Your task to perform on an android device: open the mobile data screen to see how much data has been used Image 0: 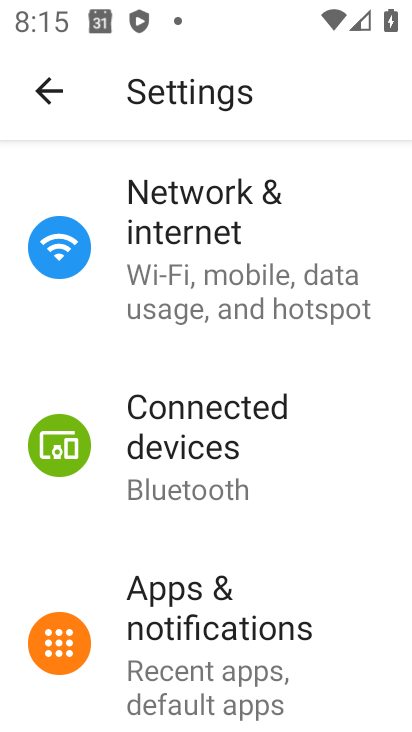
Step 0: press home button
Your task to perform on an android device: open the mobile data screen to see how much data has been used Image 1: 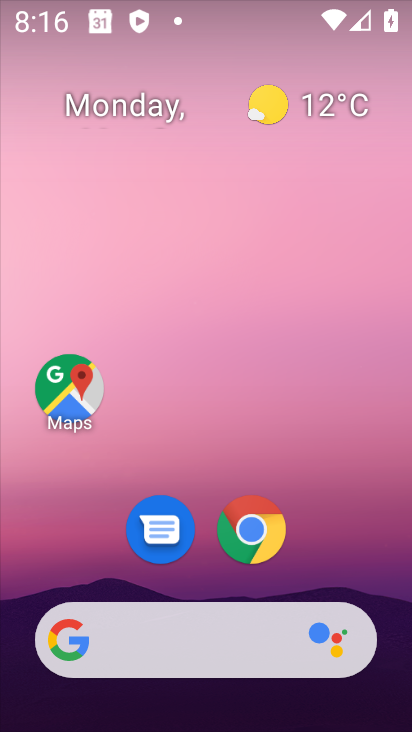
Step 1: drag from (225, 619) to (245, 65)
Your task to perform on an android device: open the mobile data screen to see how much data has been used Image 2: 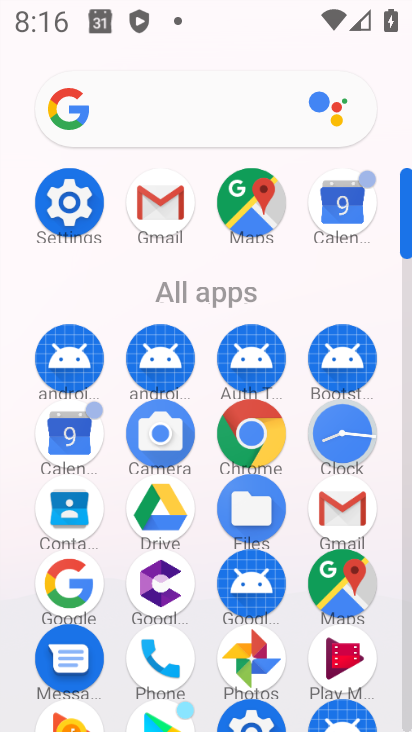
Step 2: click (76, 216)
Your task to perform on an android device: open the mobile data screen to see how much data has been used Image 3: 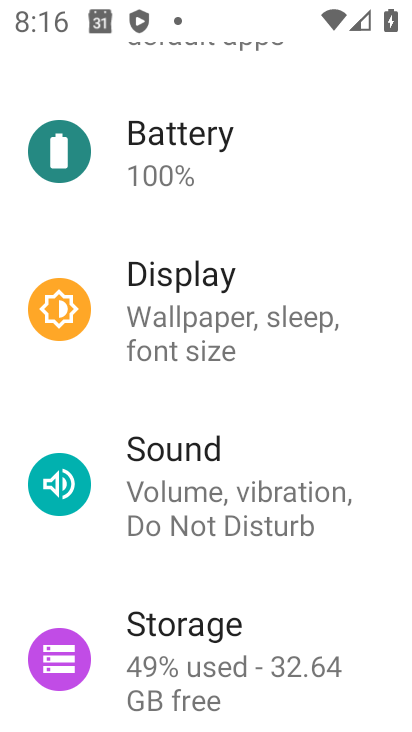
Step 3: drag from (261, 111) to (239, 729)
Your task to perform on an android device: open the mobile data screen to see how much data has been used Image 4: 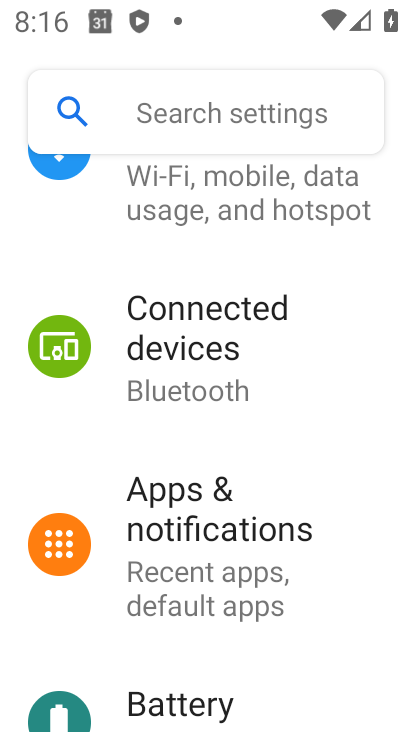
Step 4: drag from (236, 251) to (166, 697)
Your task to perform on an android device: open the mobile data screen to see how much data has been used Image 5: 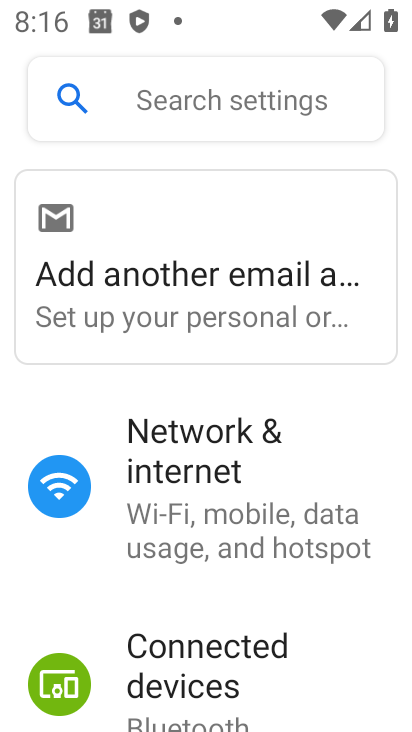
Step 5: click (225, 488)
Your task to perform on an android device: open the mobile data screen to see how much data has been used Image 6: 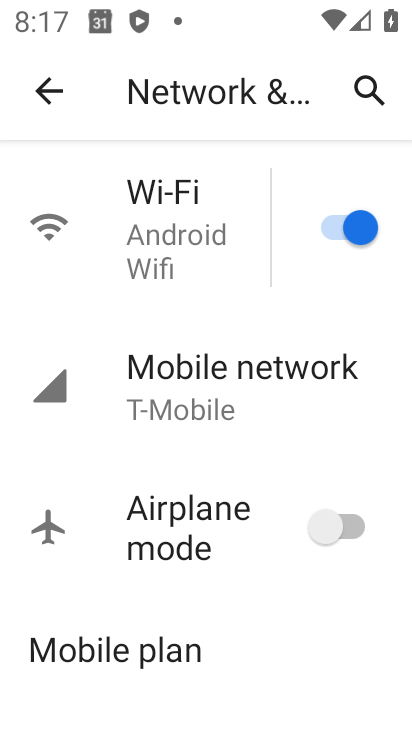
Step 6: click (195, 378)
Your task to perform on an android device: open the mobile data screen to see how much data has been used Image 7: 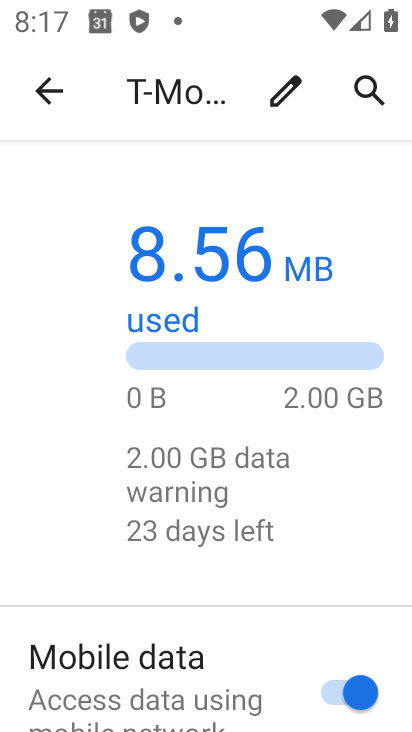
Step 7: task complete